Your task to perform on an android device: delete the emails in spam in the gmail app Image 0: 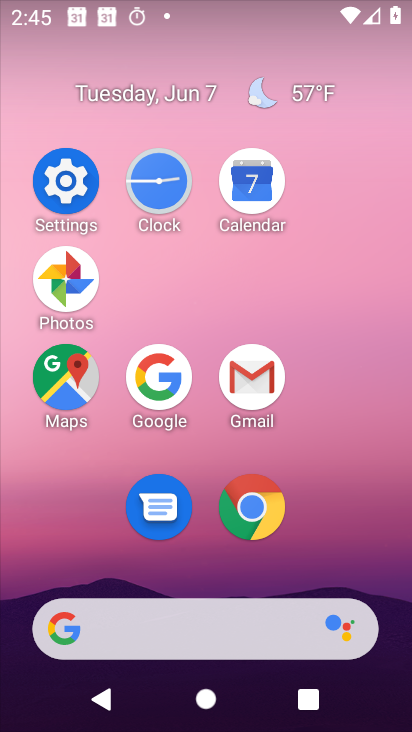
Step 0: click (257, 389)
Your task to perform on an android device: delete the emails in spam in the gmail app Image 1: 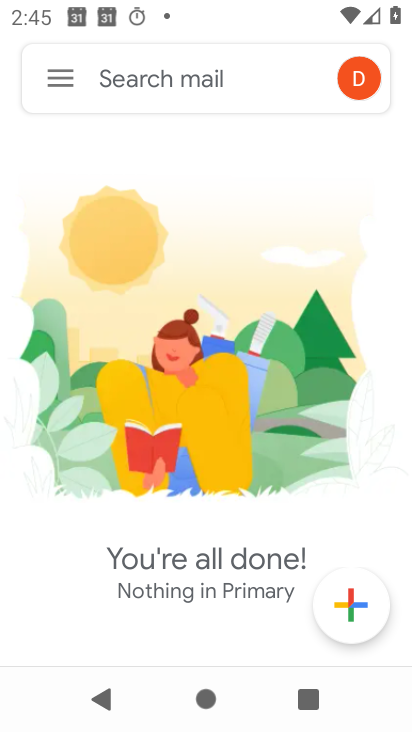
Step 1: click (53, 83)
Your task to perform on an android device: delete the emails in spam in the gmail app Image 2: 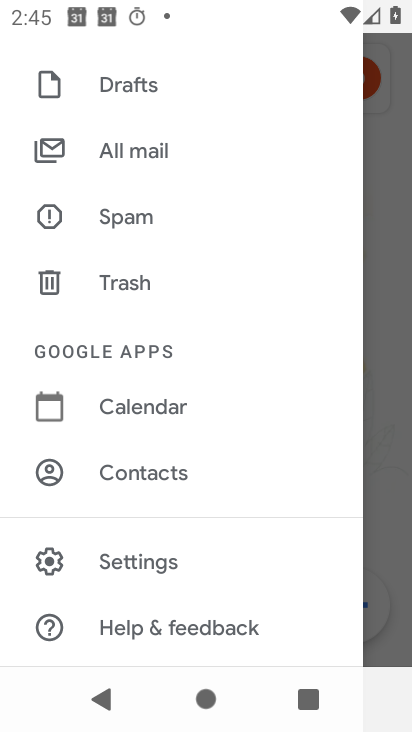
Step 2: click (174, 210)
Your task to perform on an android device: delete the emails in spam in the gmail app Image 3: 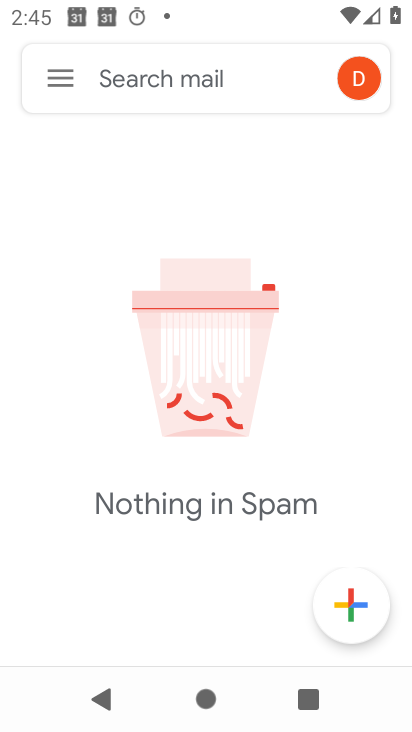
Step 3: task complete